Your task to perform on an android device: set the stopwatch Image 0: 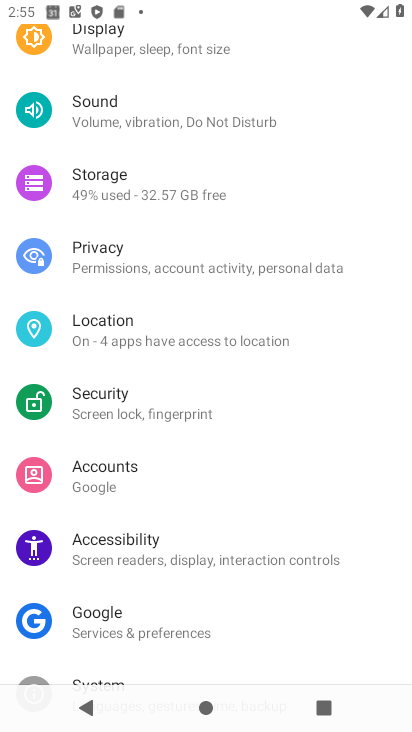
Step 0: press home button
Your task to perform on an android device: set the stopwatch Image 1: 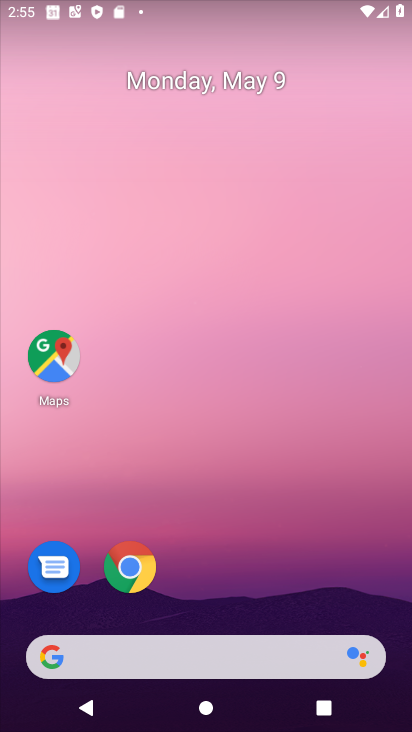
Step 1: drag from (268, 544) to (233, 281)
Your task to perform on an android device: set the stopwatch Image 2: 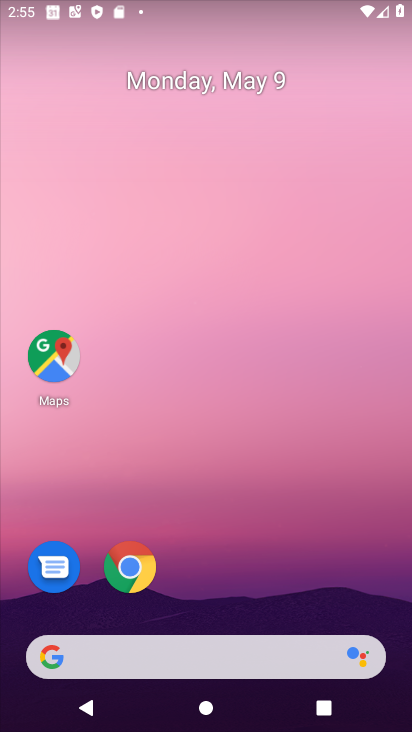
Step 2: drag from (233, 614) to (248, 167)
Your task to perform on an android device: set the stopwatch Image 3: 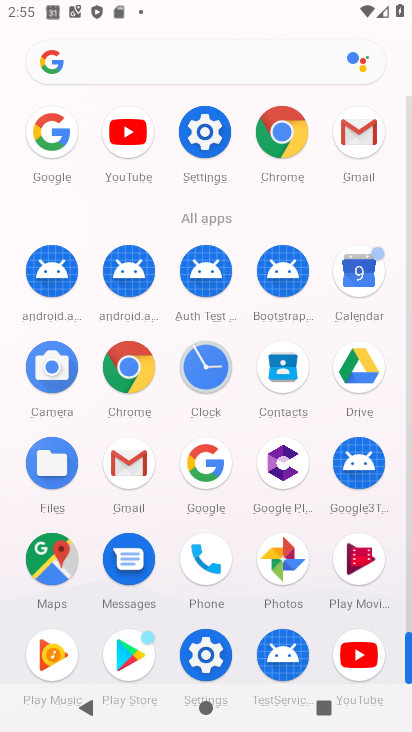
Step 3: click (217, 361)
Your task to perform on an android device: set the stopwatch Image 4: 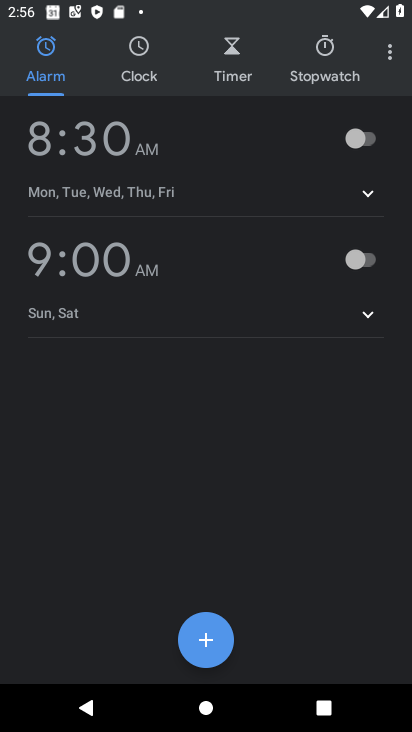
Step 4: click (313, 59)
Your task to perform on an android device: set the stopwatch Image 5: 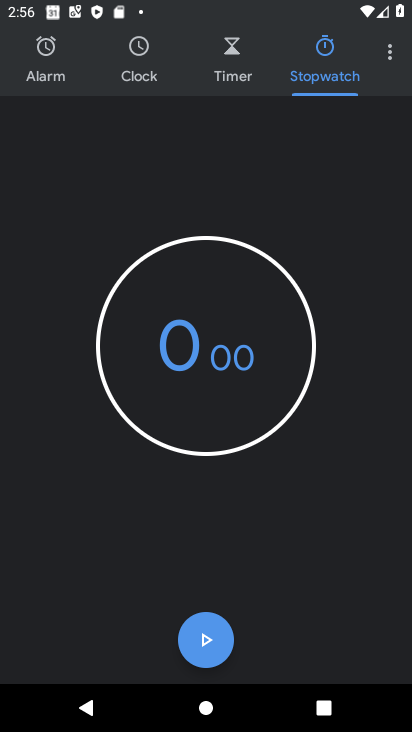
Step 5: click (210, 628)
Your task to perform on an android device: set the stopwatch Image 6: 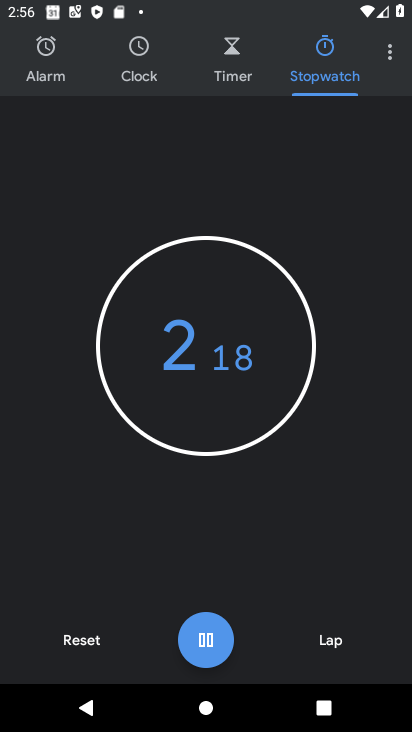
Step 6: task complete